Your task to perform on an android device: Go to settings Image 0: 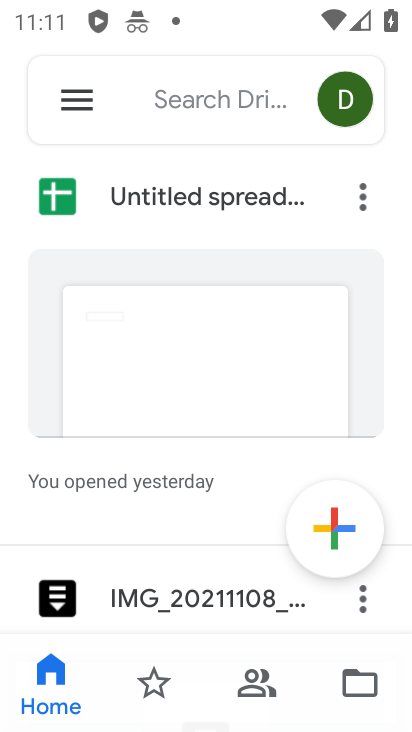
Step 0: press home button
Your task to perform on an android device: Go to settings Image 1: 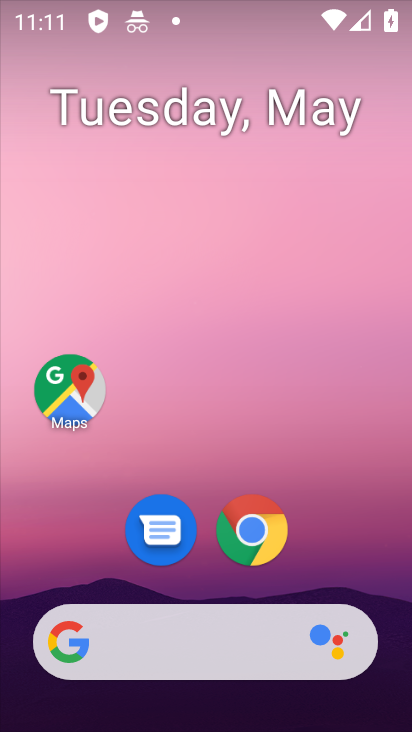
Step 1: drag from (327, 496) to (276, 70)
Your task to perform on an android device: Go to settings Image 2: 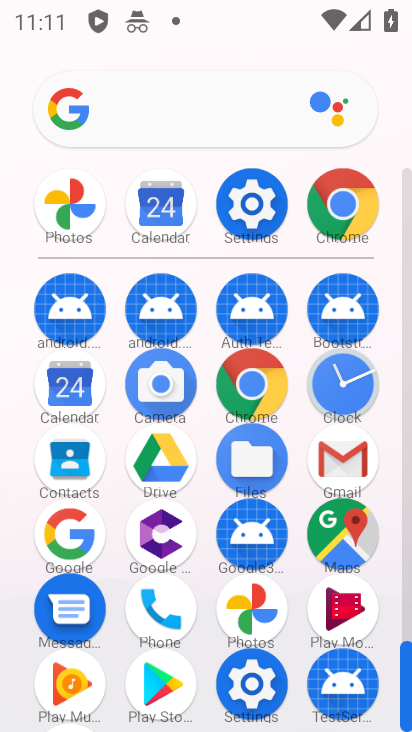
Step 2: click (244, 194)
Your task to perform on an android device: Go to settings Image 3: 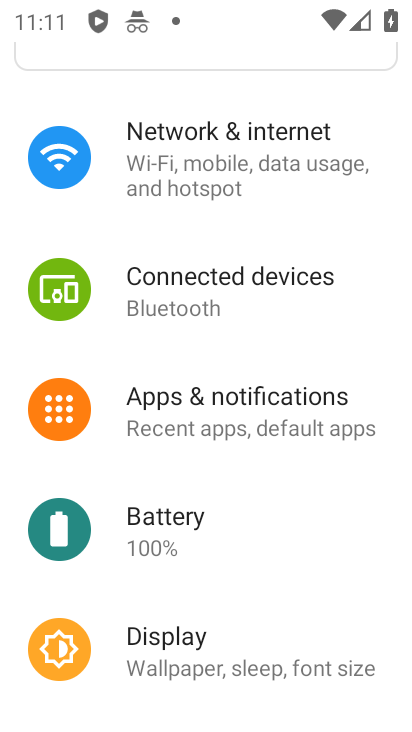
Step 3: type ""
Your task to perform on an android device: Go to settings Image 4: 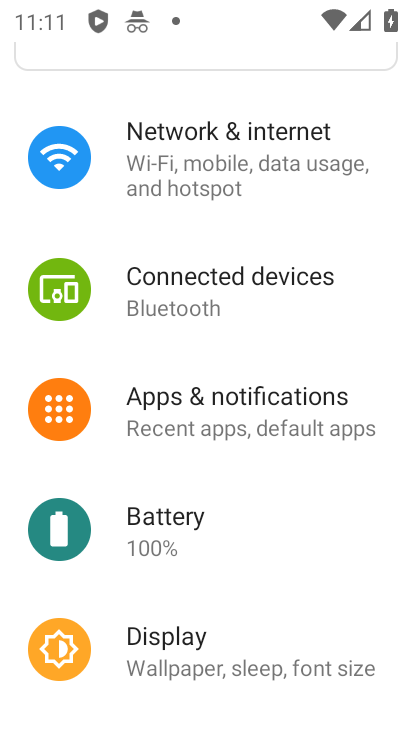
Step 4: type ""
Your task to perform on an android device: Go to settings Image 5: 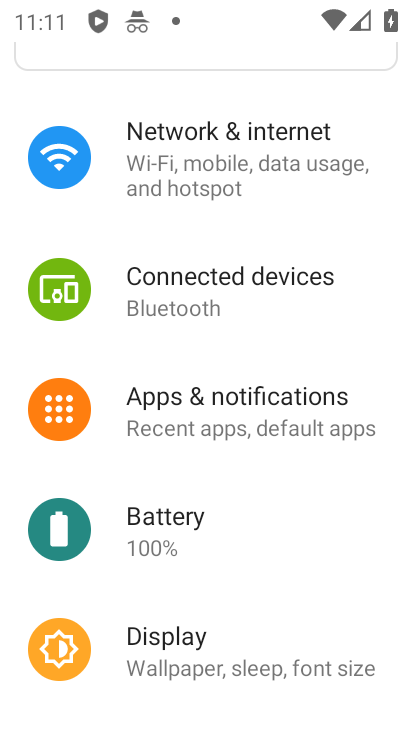
Step 5: task complete